Your task to perform on an android device: Open the stopwatch Image 0: 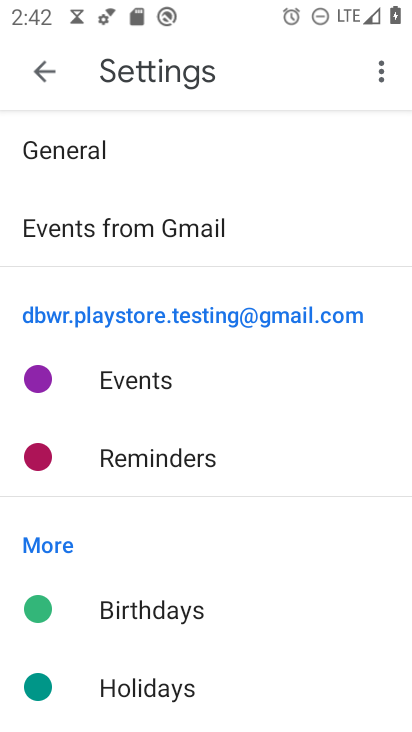
Step 0: press home button
Your task to perform on an android device: Open the stopwatch Image 1: 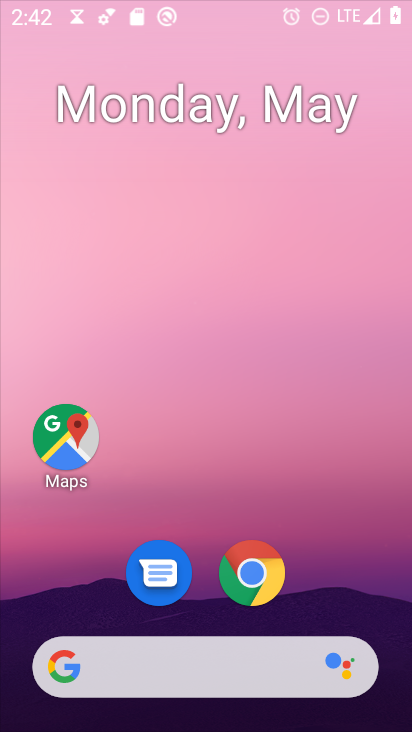
Step 1: drag from (157, 595) to (195, 195)
Your task to perform on an android device: Open the stopwatch Image 2: 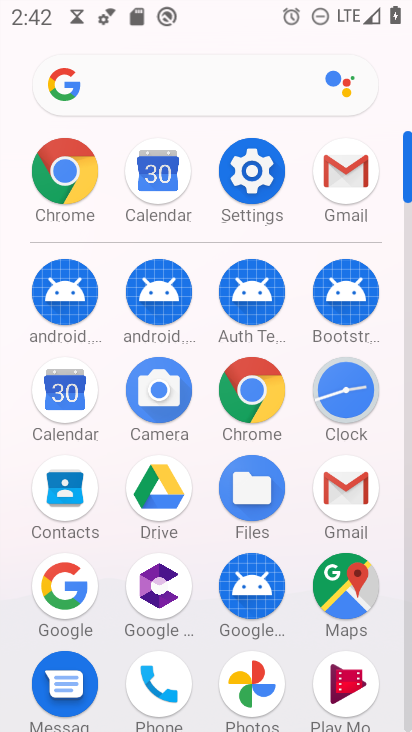
Step 2: click (353, 367)
Your task to perform on an android device: Open the stopwatch Image 3: 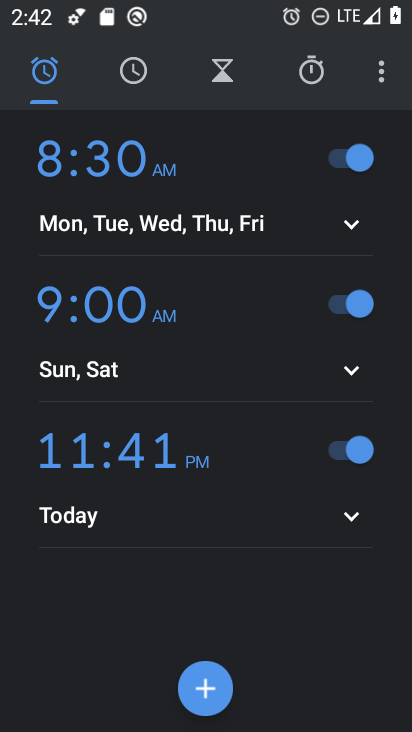
Step 3: click (308, 57)
Your task to perform on an android device: Open the stopwatch Image 4: 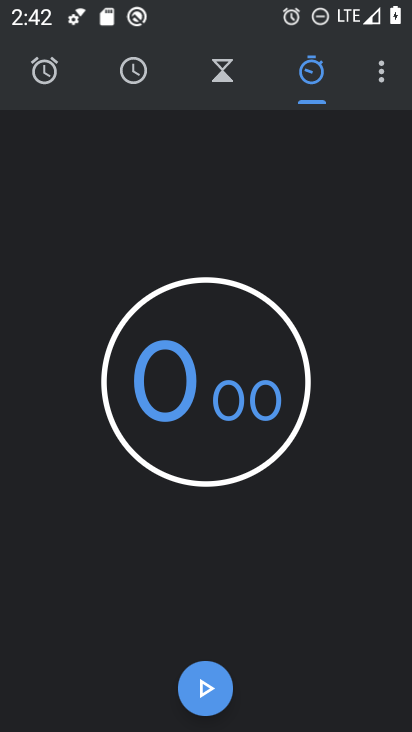
Step 4: task complete